Your task to perform on an android device: turn off data saver in the chrome app Image 0: 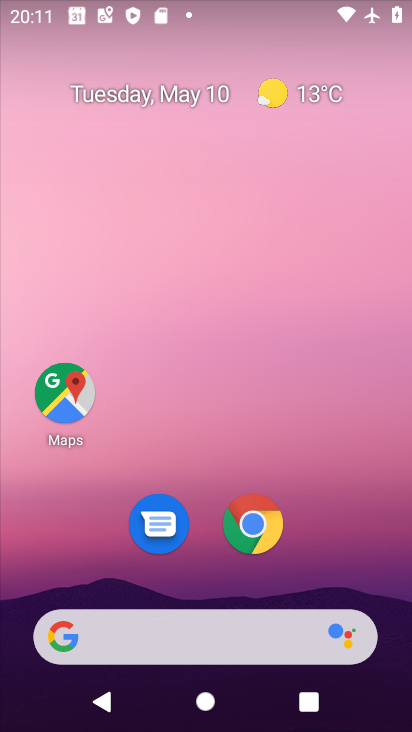
Step 0: click (264, 525)
Your task to perform on an android device: turn off data saver in the chrome app Image 1: 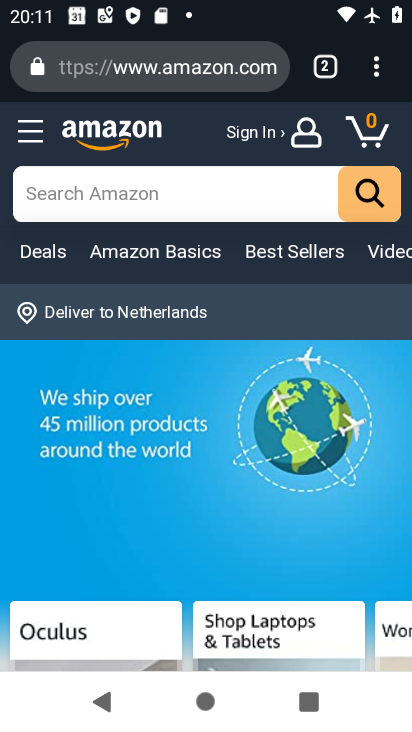
Step 1: click (376, 70)
Your task to perform on an android device: turn off data saver in the chrome app Image 2: 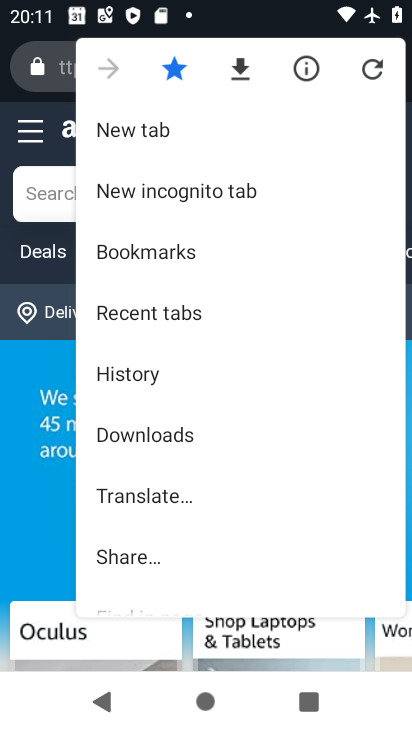
Step 2: drag from (267, 441) to (276, 157)
Your task to perform on an android device: turn off data saver in the chrome app Image 3: 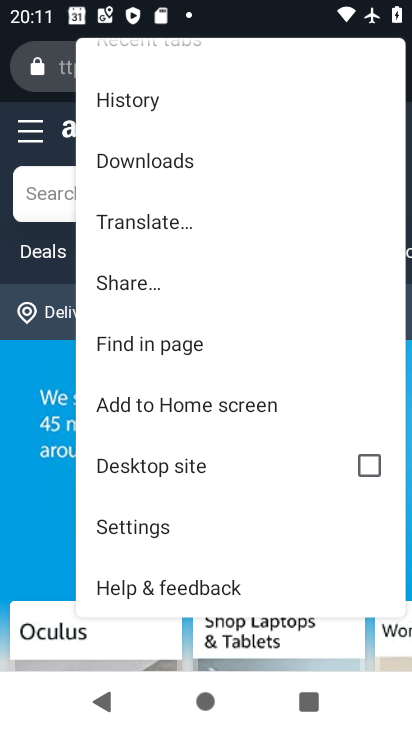
Step 3: click (170, 520)
Your task to perform on an android device: turn off data saver in the chrome app Image 4: 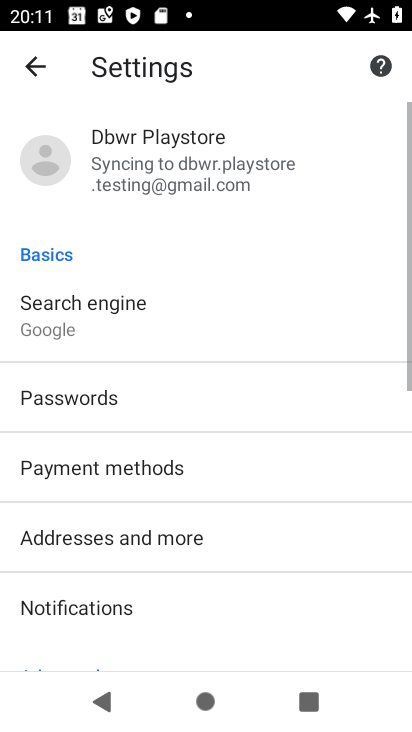
Step 4: drag from (221, 567) to (281, 58)
Your task to perform on an android device: turn off data saver in the chrome app Image 5: 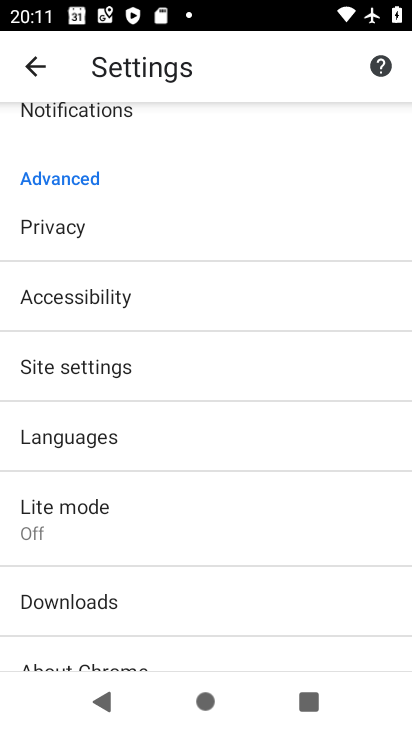
Step 5: click (125, 521)
Your task to perform on an android device: turn off data saver in the chrome app Image 6: 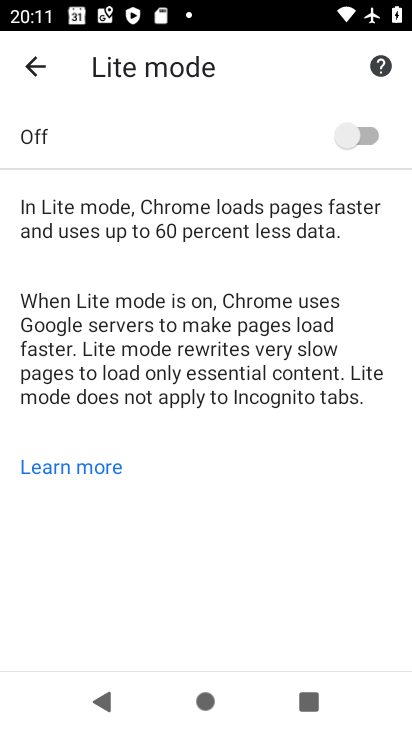
Step 6: task complete